Your task to perform on an android device: check storage Image 0: 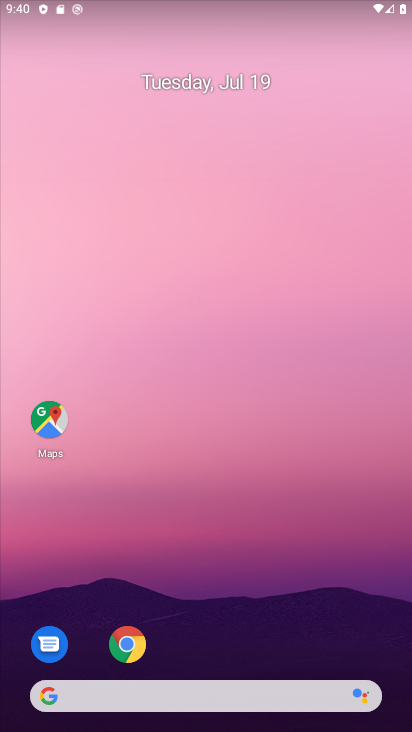
Step 0: drag from (209, 667) to (222, 243)
Your task to perform on an android device: check storage Image 1: 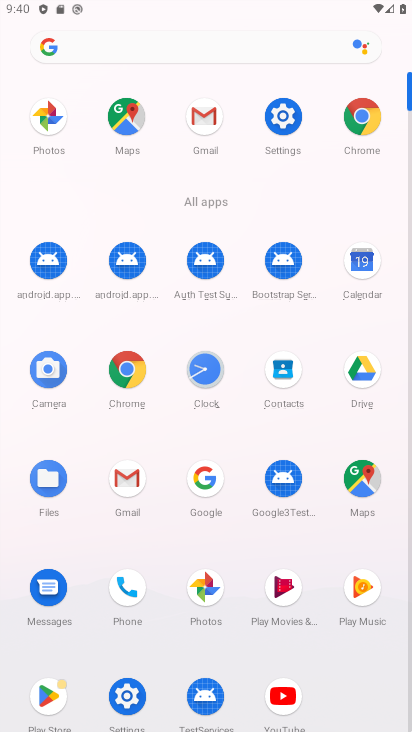
Step 1: click (126, 713)
Your task to perform on an android device: check storage Image 2: 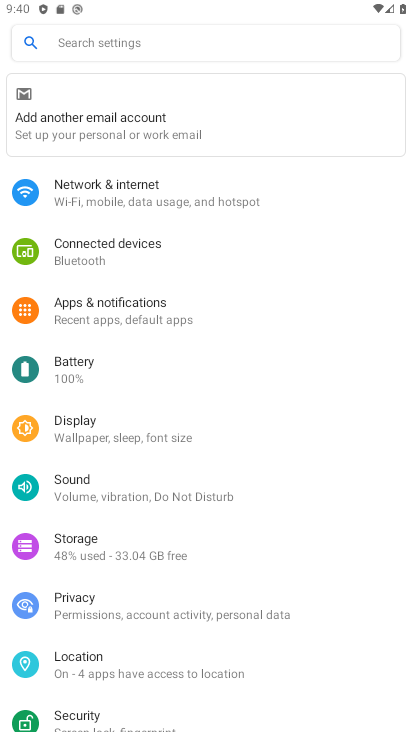
Step 2: click (115, 544)
Your task to perform on an android device: check storage Image 3: 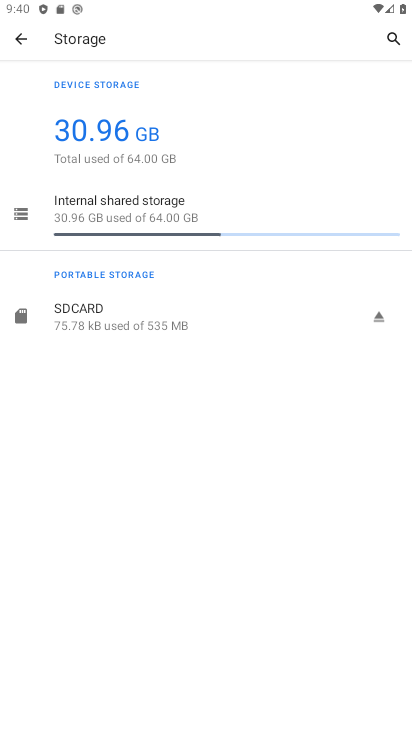
Step 3: task complete